Your task to perform on an android device: Open location settings Image 0: 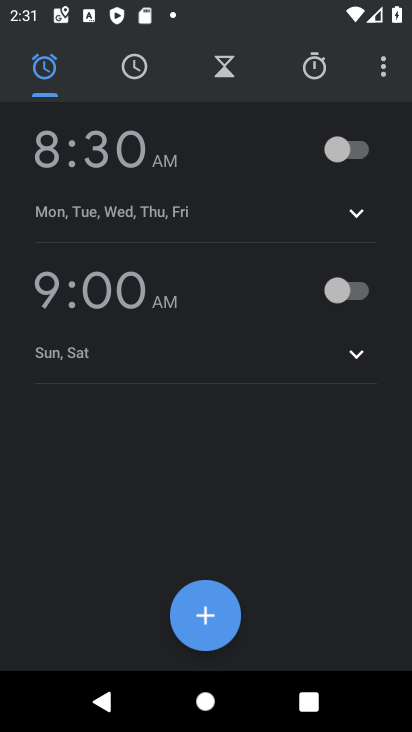
Step 0: press home button
Your task to perform on an android device: Open location settings Image 1: 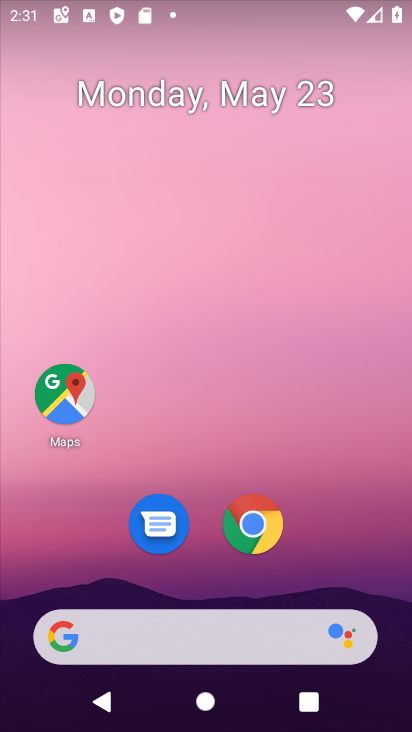
Step 1: drag from (210, 446) to (198, 9)
Your task to perform on an android device: Open location settings Image 2: 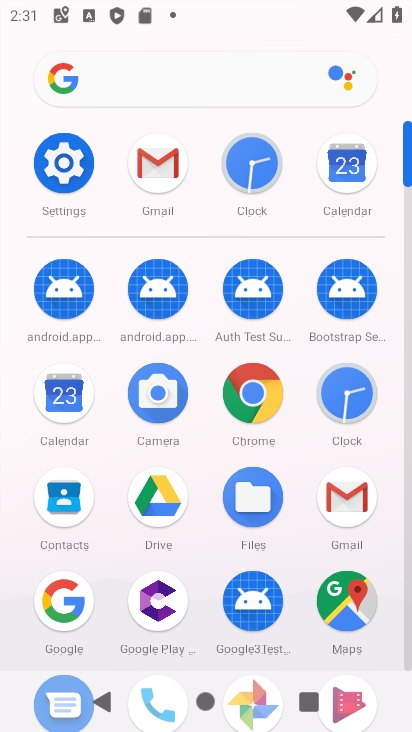
Step 2: click (79, 157)
Your task to perform on an android device: Open location settings Image 3: 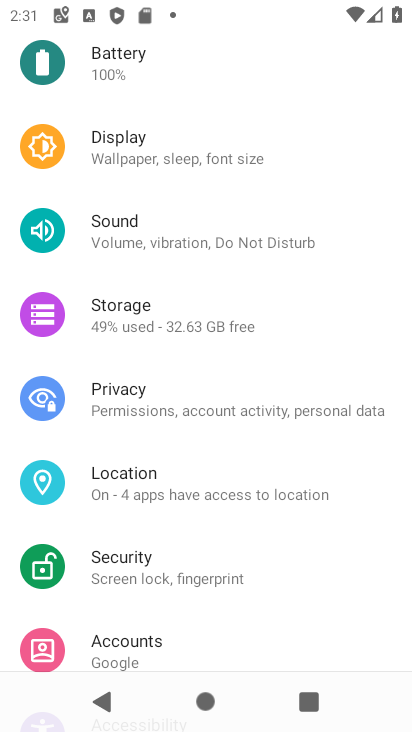
Step 3: click (183, 486)
Your task to perform on an android device: Open location settings Image 4: 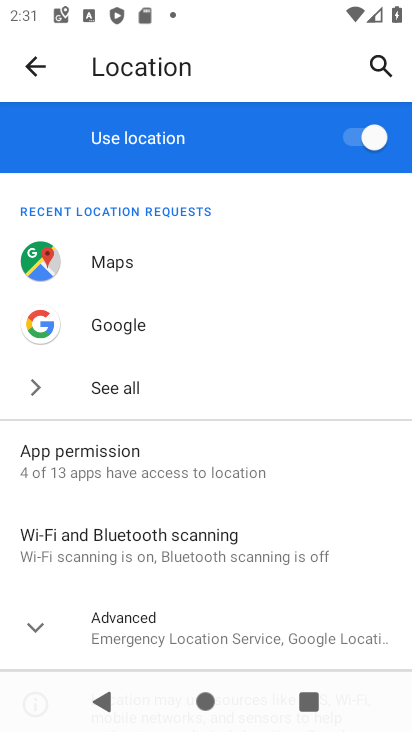
Step 4: task complete